Your task to perform on an android device: turn on priority inbox in the gmail app Image 0: 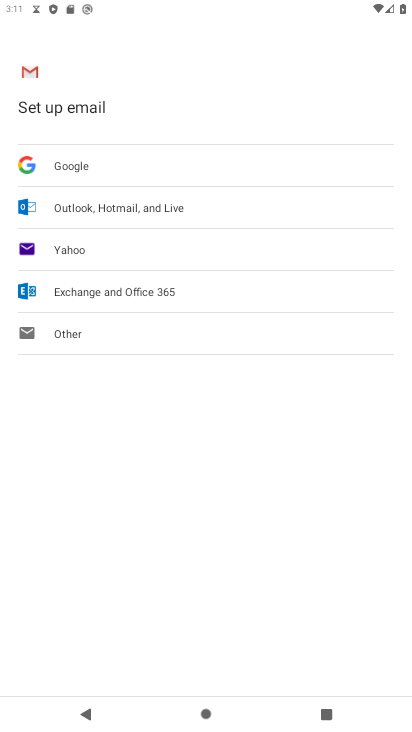
Step 0: press home button
Your task to perform on an android device: turn on priority inbox in the gmail app Image 1: 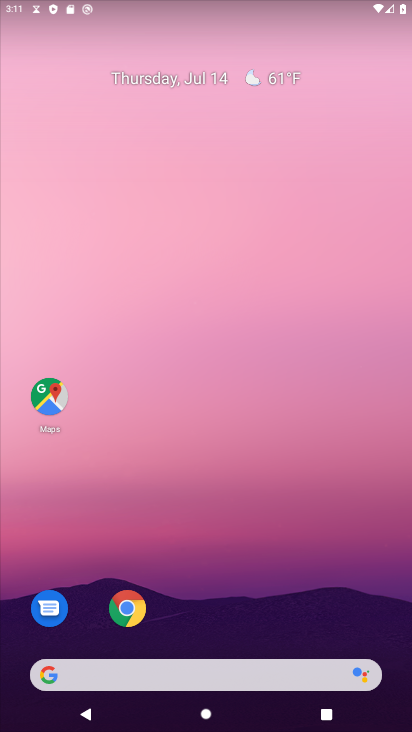
Step 1: drag from (203, 664) to (171, 102)
Your task to perform on an android device: turn on priority inbox in the gmail app Image 2: 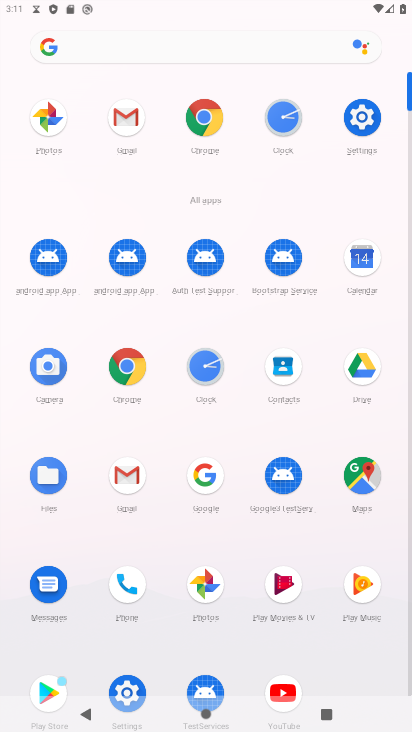
Step 2: click (137, 467)
Your task to perform on an android device: turn on priority inbox in the gmail app Image 3: 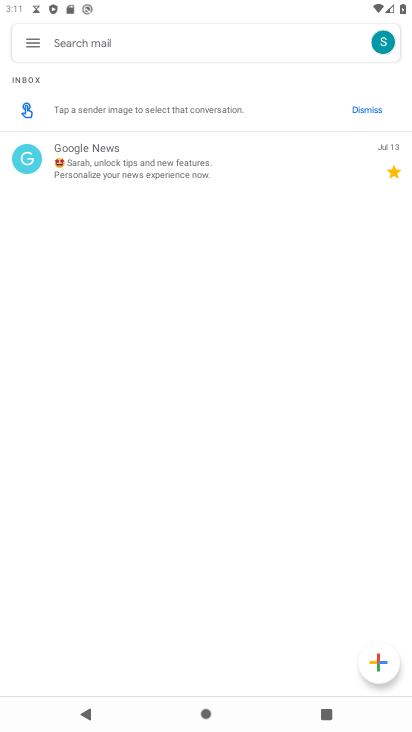
Step 3: click (27, 46)
Your task to perform on an android device: turn on priority inbox in the gmail app Image 4: 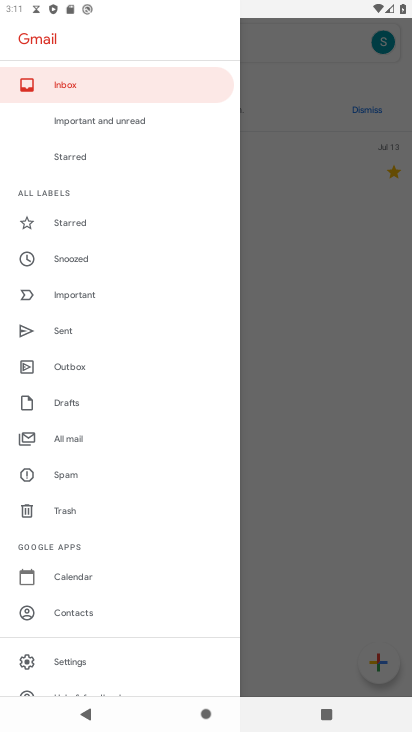
Step 4: click (87, 658)
Your task to perform on an android device: turn on priority inbox in the gmail app Image 5: 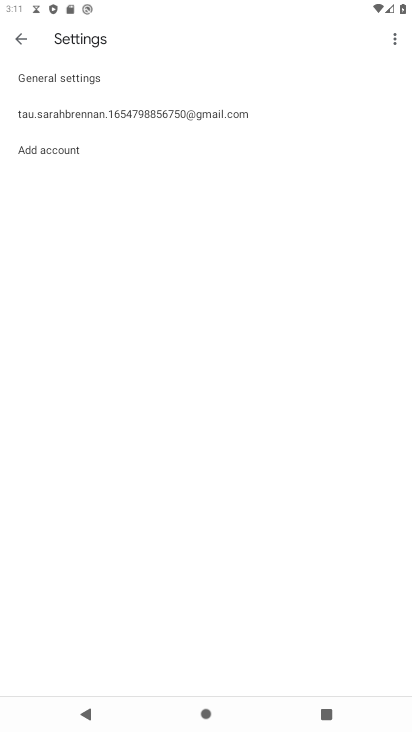
Step 5: click (42, 116)
Your task to perform on an android device: turn on priority inbox in the gmail app Image 6: 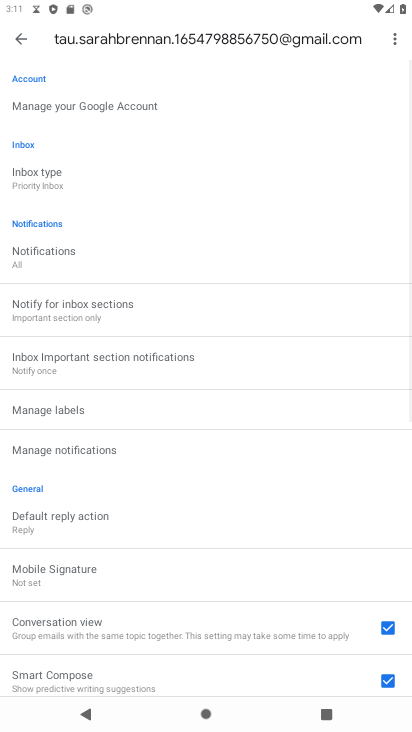
Step 6: click (54, 180)
Your task to perform on an android device: turn on priority inbox in the gmail app Image 7: 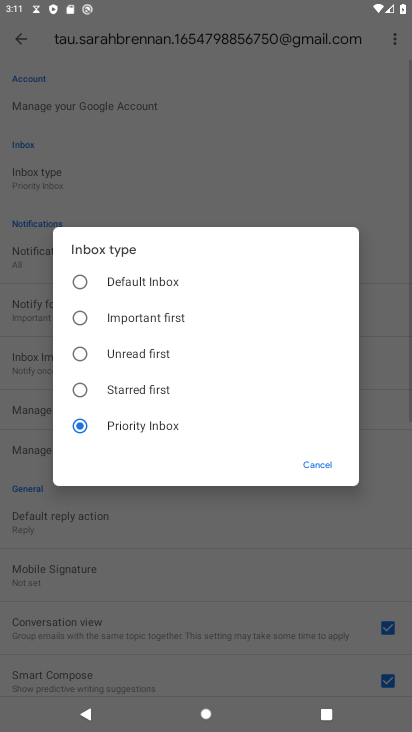
Step 7: click (147, 428)
Your task to perform on an android device: turn on priority inbox in the gmail app Image 8: 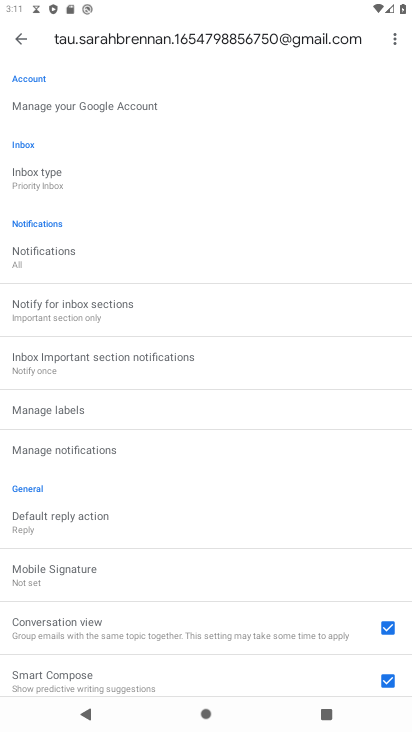
Step 8: task complete